Your task to perform on an android device: change the clock display to digital Image 0: 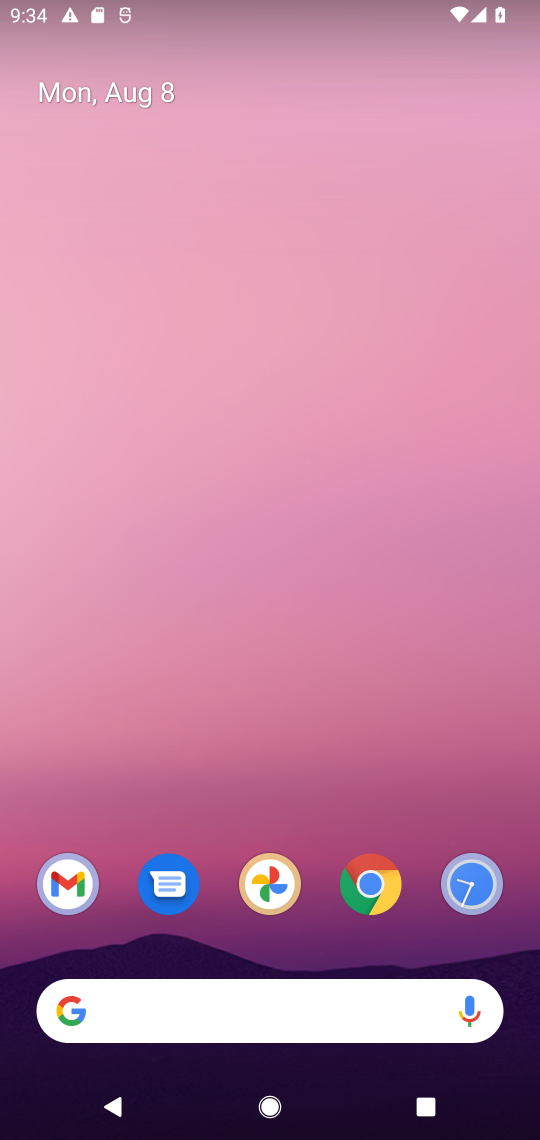
Step 0: click (468, 868)
Your task to perform on an android device: change the clock display to digital Image 1: 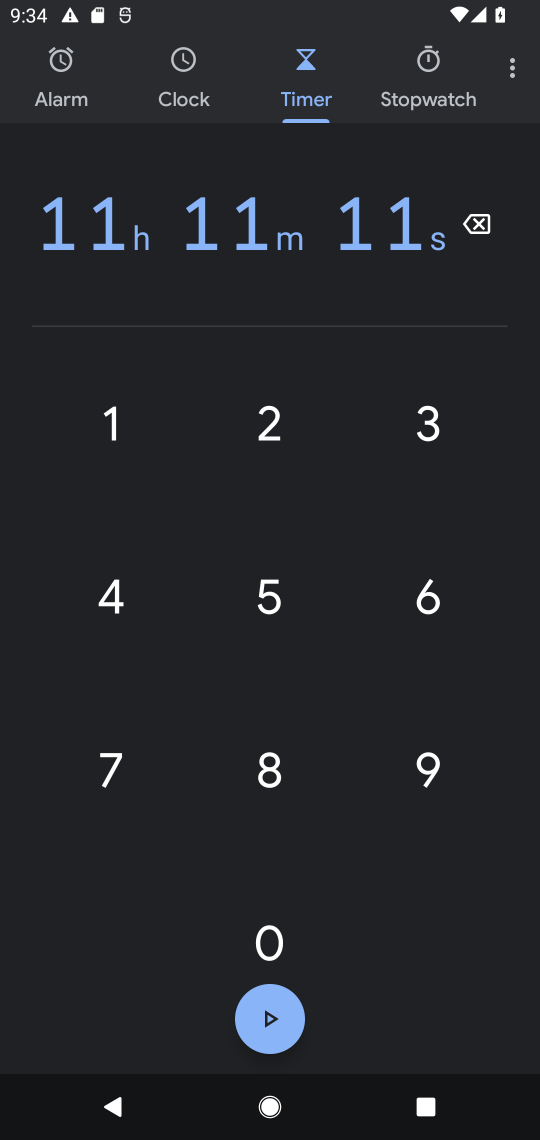
Step 1: click (512, 68)
Your task to perform on an android device: change the clock display to digital Image 2: 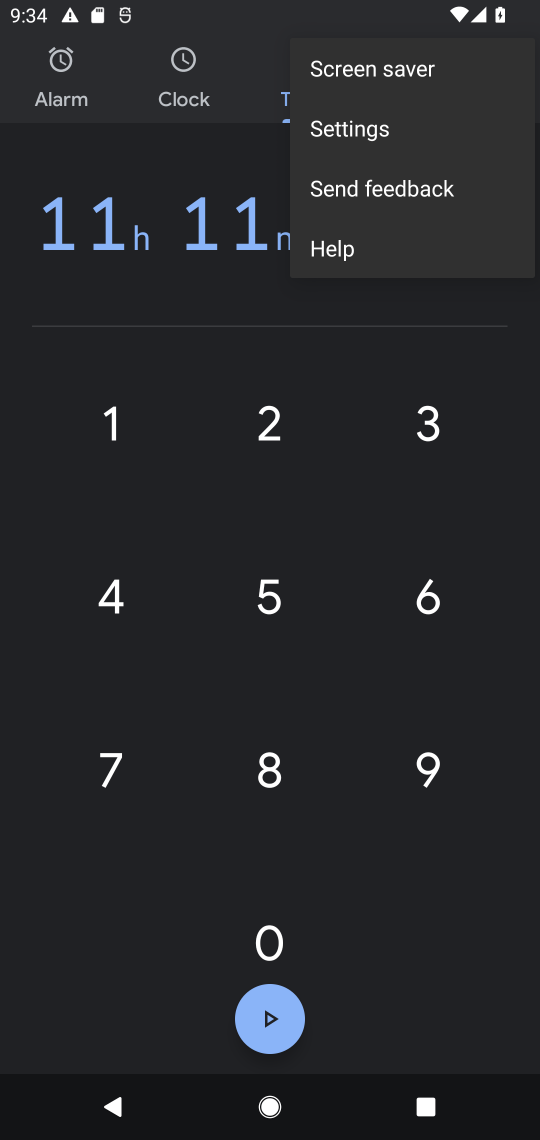
Step 2: click (372, 128)
Your task to perform on an android device: change the clock display to digital Image 3: 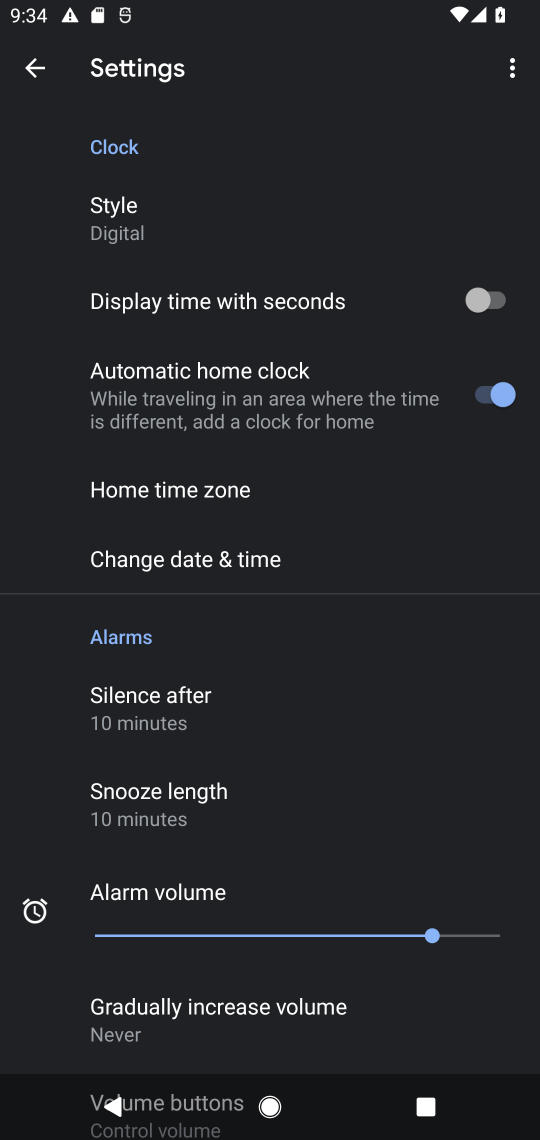
Step 3: click (114, 216)
Your task to perform on an android device: change the clock display to digital Image 4: 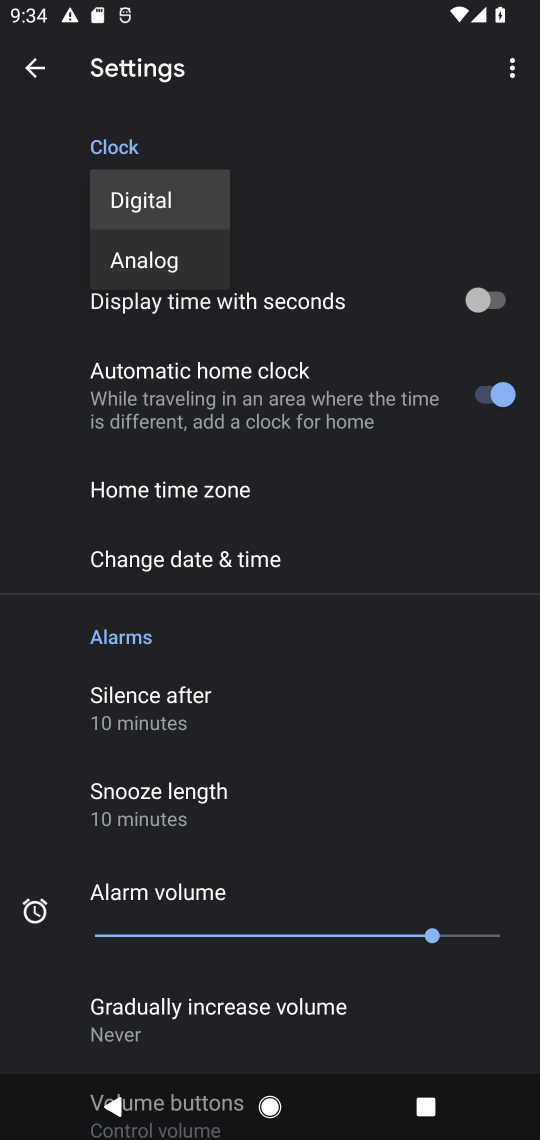
Step 4: click (148, 191)
Your task to perform on an android device: change the clock display to digital Image 5: 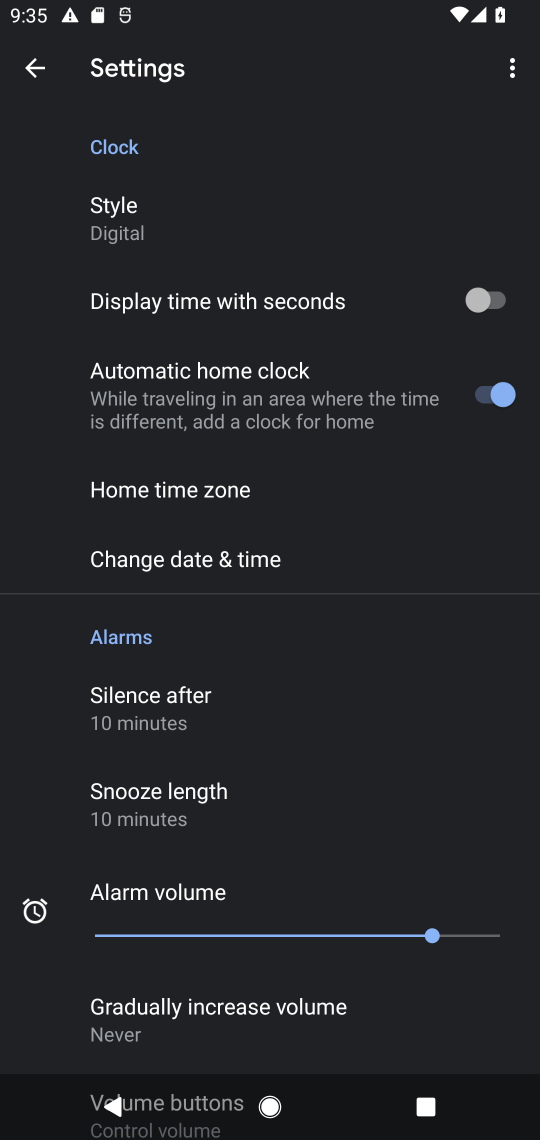
Step 5: task complete